Your task to perform on an android device: turn off picture-in-picture Image 0: 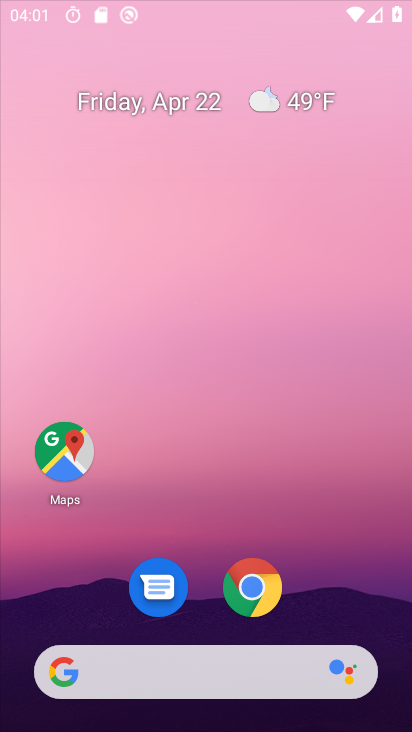
Step 0: drag from (405, 34) to (333, 7)
Your task to perform on an android device: turn off picture-in-picture Image 1: 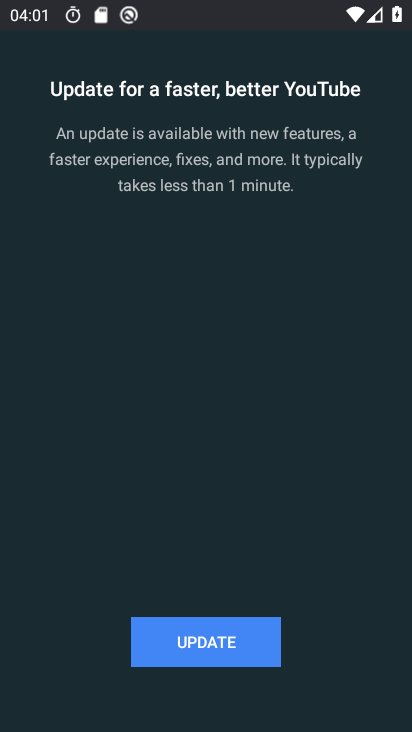
Step 1: press home button
Your task to perform on an android device: turn off picture-in-picture Image 2: 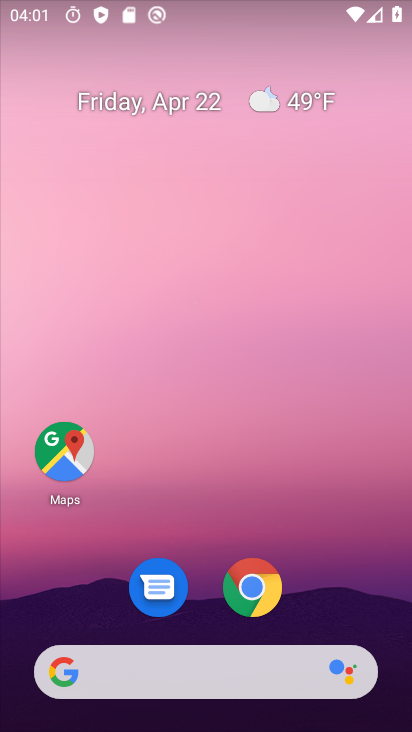
Step 2: click (259, 592)
Your task to perform on an android device: turn off picture-in-picture Image 3: 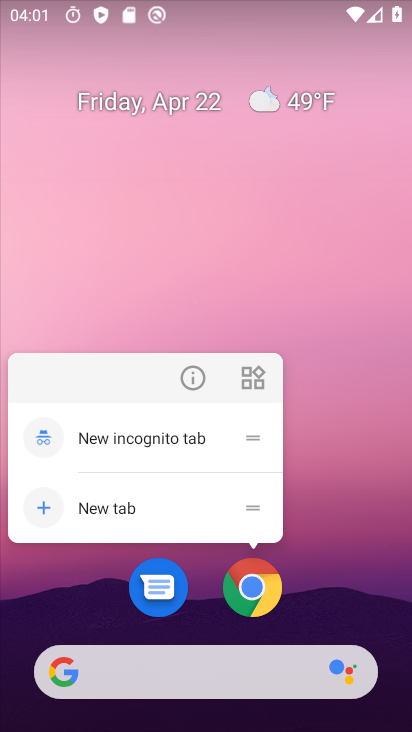
Step 3: click (193, 389)
Your task to perform on an android device: turn off picture-in-picture Image 4: 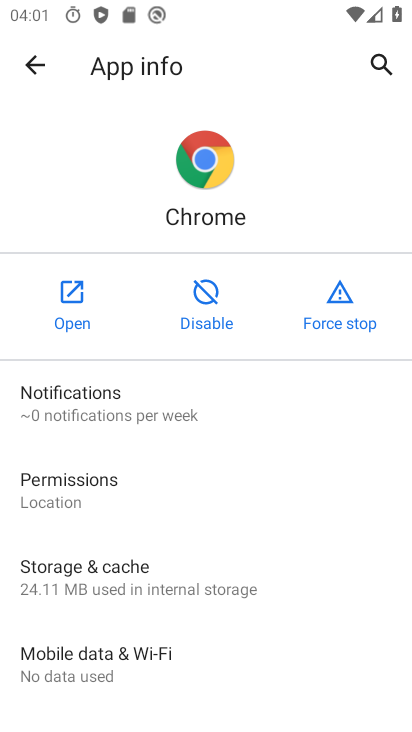
Step 4: drag from (193, 657) to (195, 272)
Your task to perform on an android device: turn off picture-in-picture Image 5: 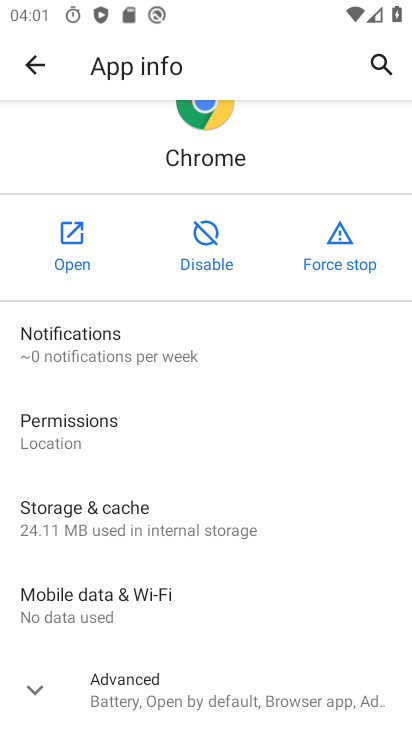
Step 5: click (35, 702)
Your task to perform on an android device: turn off picture-in-picture Image 6: 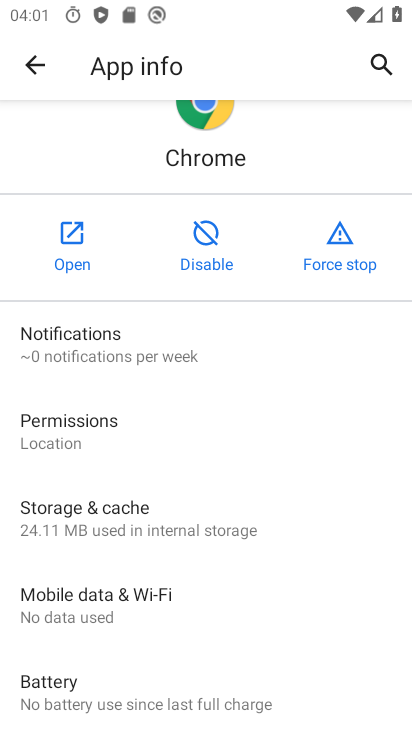
Step 6: drag from (176, 666) to (173, 315)
Your task to perform on an android device: turn off picture-in-picture Image 7: 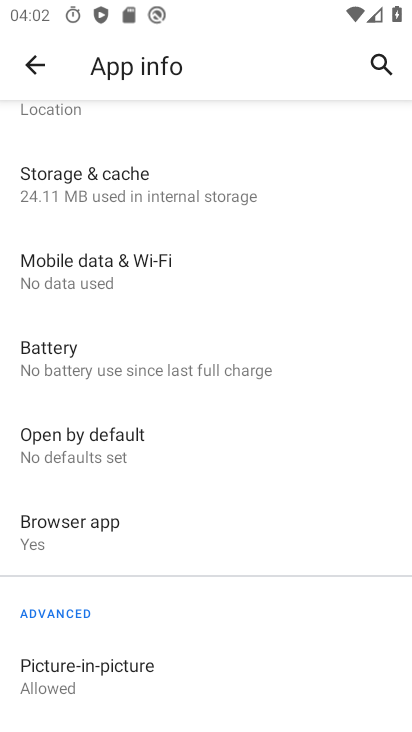
Step 7: click (68, 672)
Your task to perform on an android device: turn off picture-in-picture Image 8: 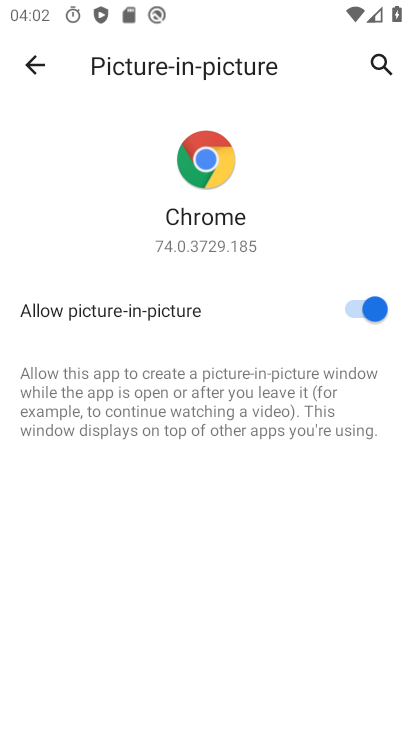
Step 8: click (367, 314)
Your task to perform on an android device: turn off picture-in-picture Image 9: 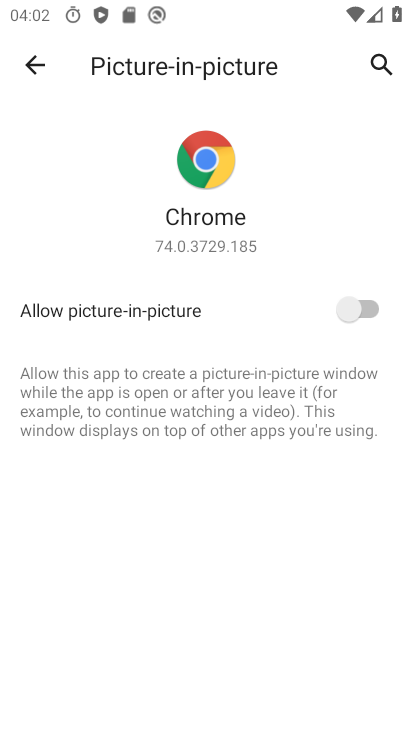
Step 9: task complete